Your task to perform on an android device: What is the recent news? Image 0: 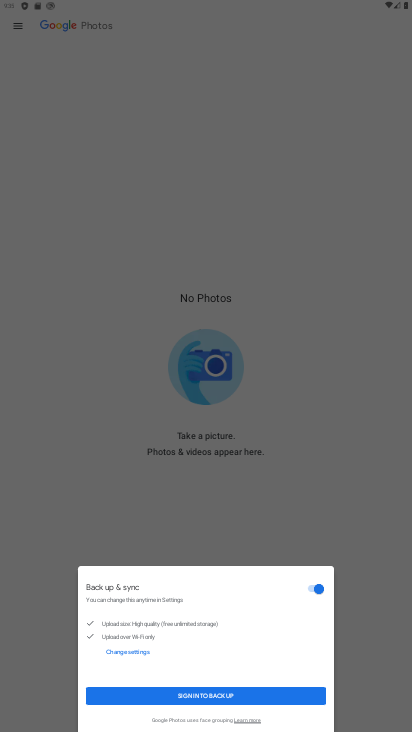
Step 0: press home button
Your task to perform on an android device: What is the recent news? Image 1: 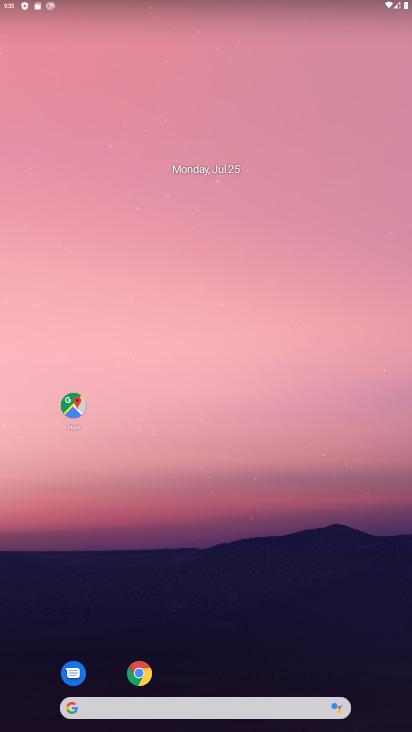
Step 1: drag from (199, 550) to (226, 135)
Your task to perform on an android device: What is the recent news? Image 2: 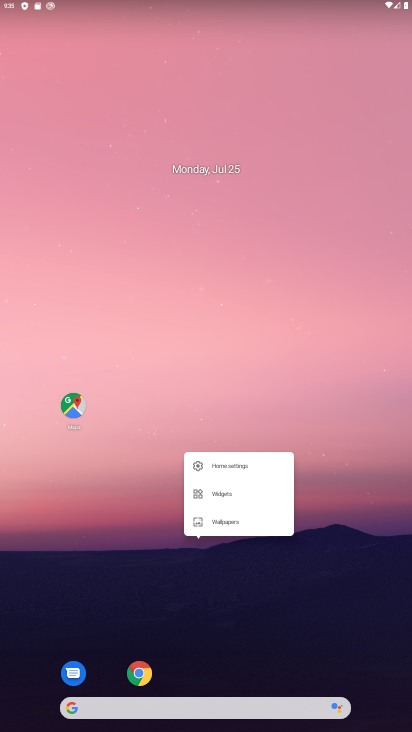
Step 2: drag from (258, 621) to (288, 153)
Your task to perform on an android device: What is the recent news? Image 3: 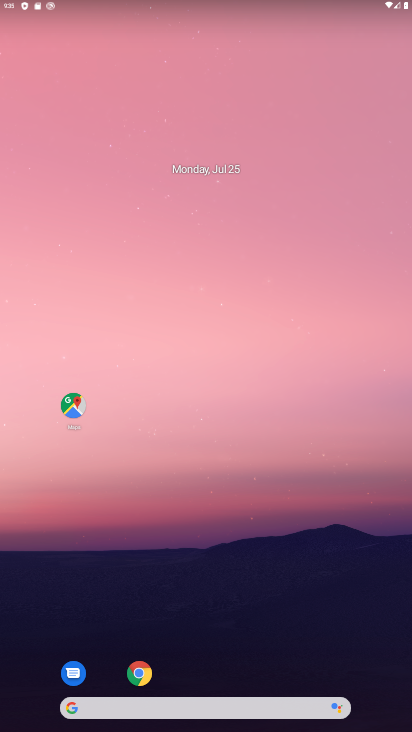
Step 3: drag from (230, 640) to (277, 119)
Your task to perform on an android device: What is the recent news? Image 4: 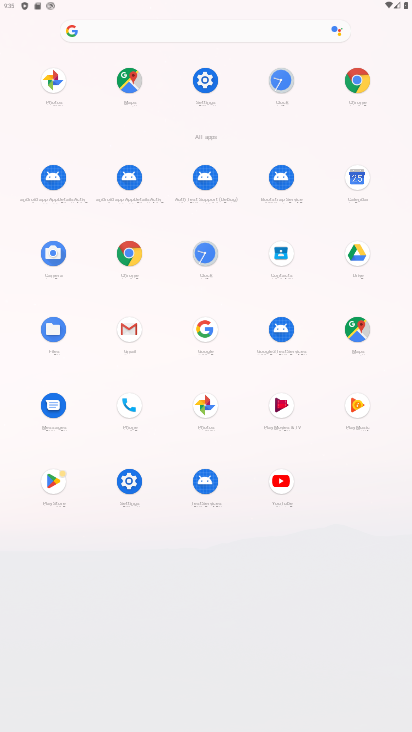
Step 4: click (125, 252)
Your task to perform on an android device: What is the recent news? Image 5: 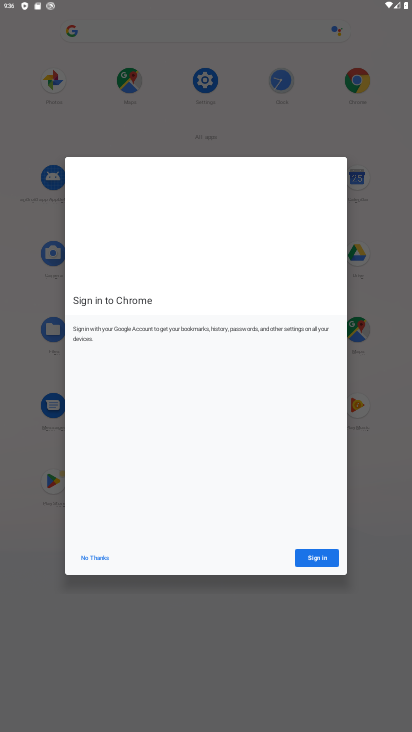
Step 5: task complete